Your task to perform on an android device: open wifi settings Image 0: 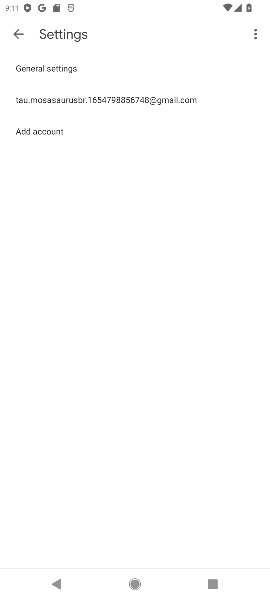
Step 0: press home button
Your task to perform on an android device: open wifi settings Image 1: 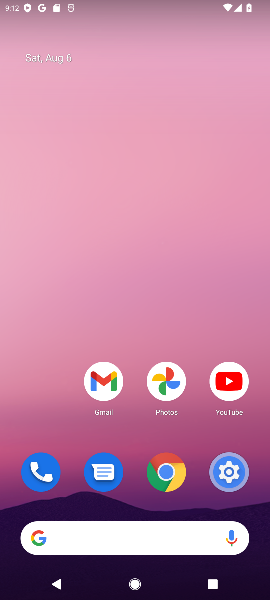
Step 1: click (224, 471)
Your task to perform on an android device: open wifi settings Image 2: 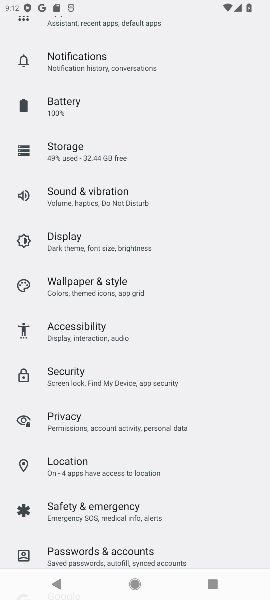
Step 2: drag from (202, 525) to (192, 203)
Your task to perform on an android device: open wifi settings Image 3: 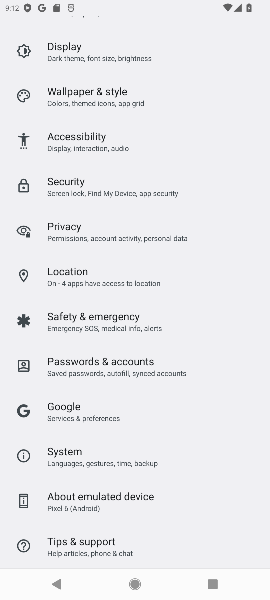
Step 3: drag from (205, 80) to (238, 509)
Your task to perform on an android device: open wifi settings Image 4: 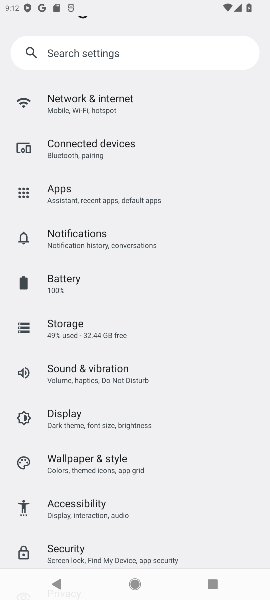
Step 4: drag from (204, 105) to (236, 502)
Your task to perform on an android device: open wifi settings Image 5: 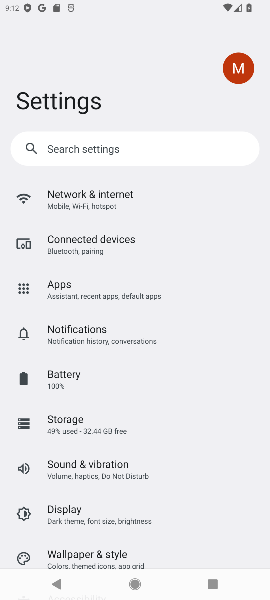
Step 5: click (55, 199)
Your task to perform on an android device: open wifi settings Image 6: 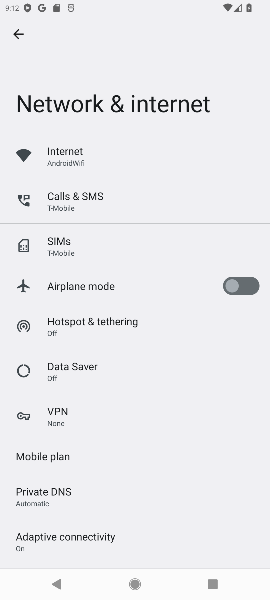
Step 6: click (59, 150)
Your task to perform on an android device: open wifi settings Image 7: 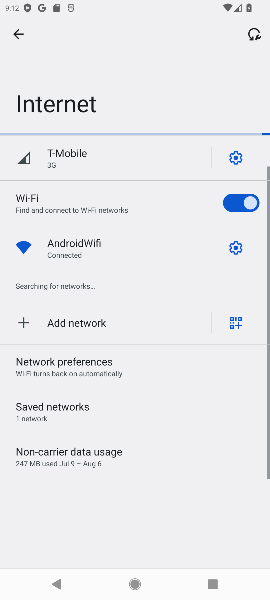
Step 7: click (242, 246)
Your task to perform on an android device: open wifi settings Image 8: 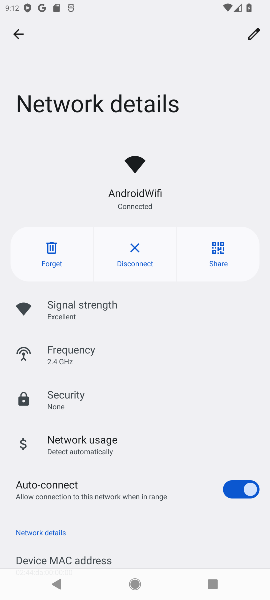
Step 8: task complete